Your task to perform on an android device: When is my next meeting? Image 0: 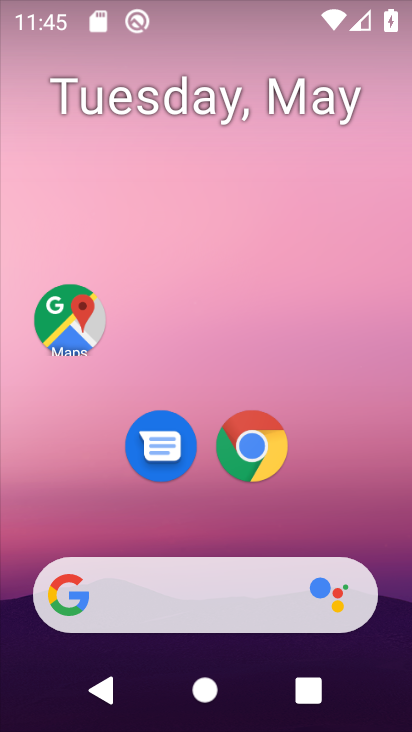
Step 0: drag from (312, 504) to (273, 105)
Your task to perform on an android device: When is my next meeting? Image 1: 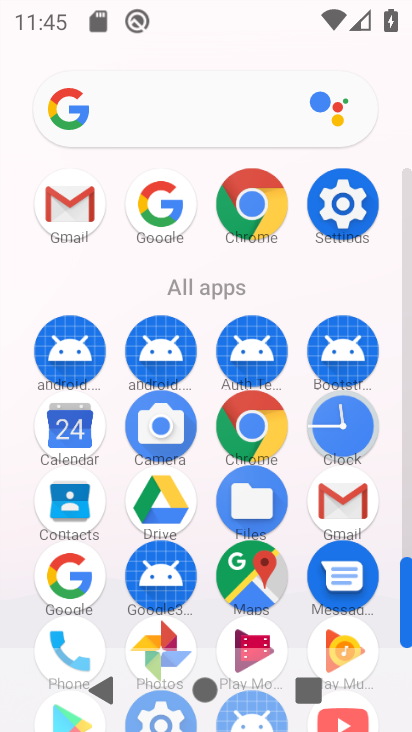
Step 1: click (78, 446)
Your task to perform on an android device: When is my next meeting? Image 2: 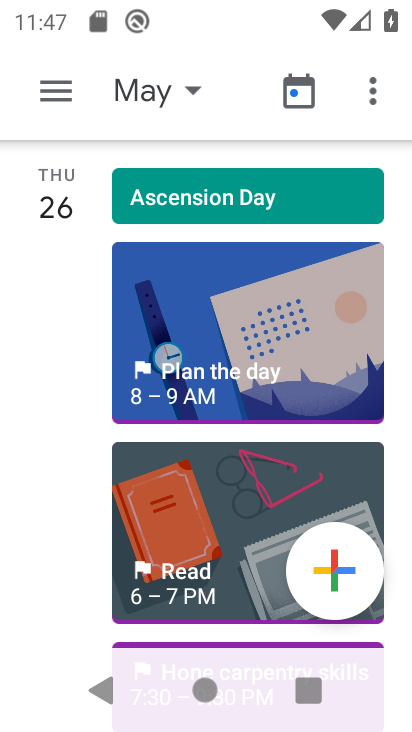
Step 2: task complete